Your task to perform on an android device: Open the calendar and show me this week's events? Image 0: 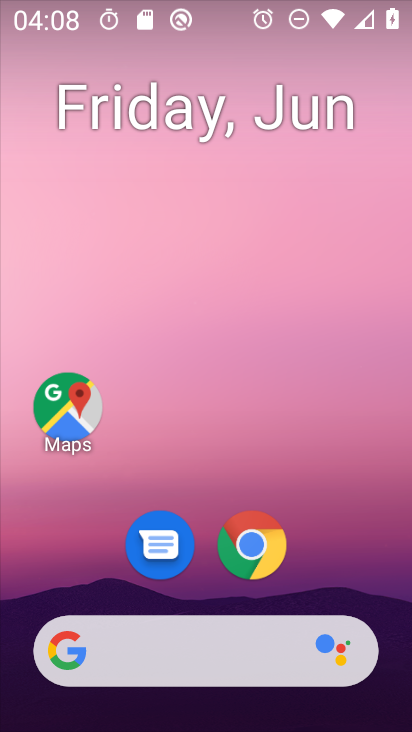
Step 0: drag from (339, 573) to (280, 104)
Your task to perform on an android device: Open the calendar and show me this week's events? Image 1: 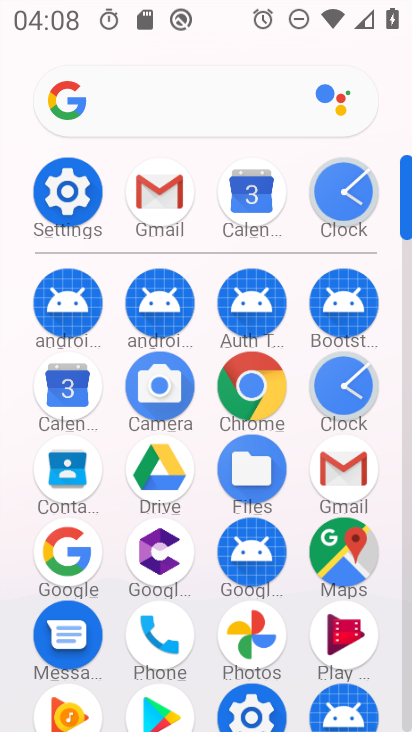
Step 1: click (260, 193)
Your task to perform on an android device: Open the calendar and show me this week's events? Image 2: 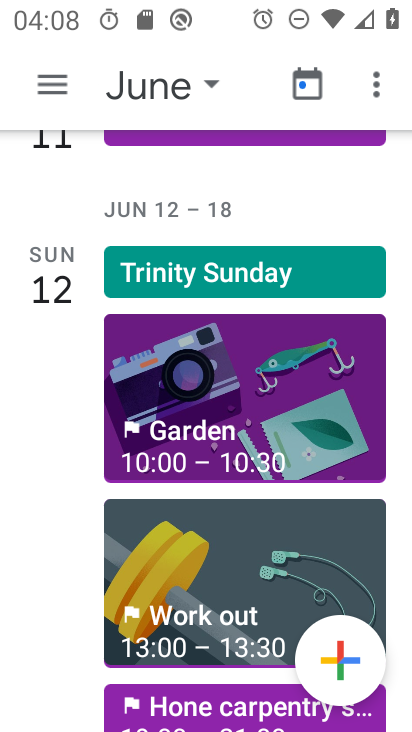
Step 2: click (191, 99)
Your task to perform on an android device: Open the calendar and show me this week's events? Image 3: 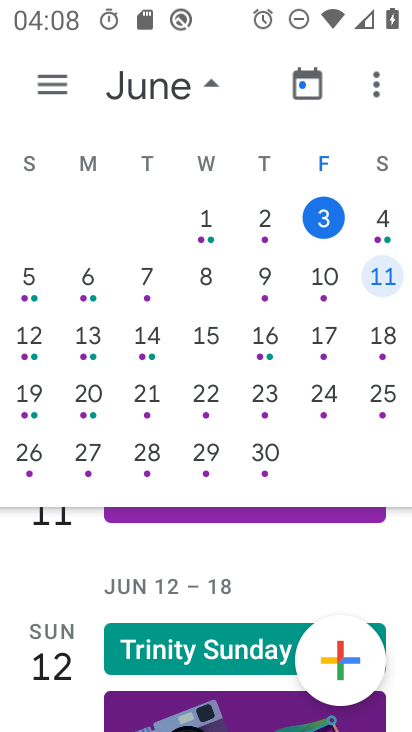
Step 3: click (323, 209)
Your task to perform on an android device: Open the calendar and show me this week's events? Image 4: 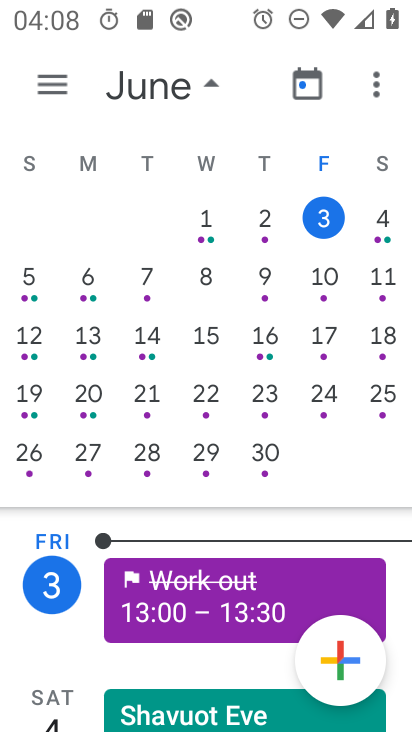
Step 4: task complete